Your task to perform on an android device: delete browsing data in the chrome app Image 0: 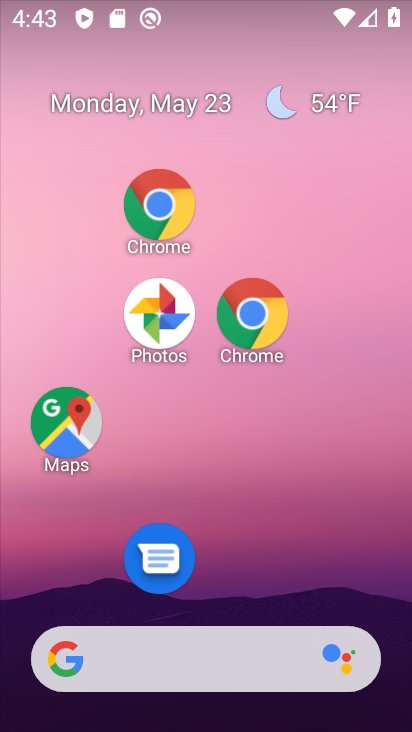
Step 0: drag from (280, 689) to (111, 16)
Your task to perform on an android device: delete browsing data in the chrome app Image 1: 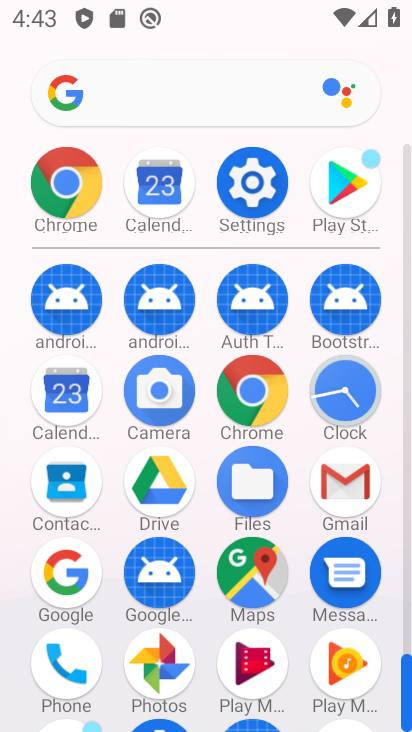
Step 1: click (59, 193)
Your task to perform on an android device: delete browsing data in the chrome app Image 2: 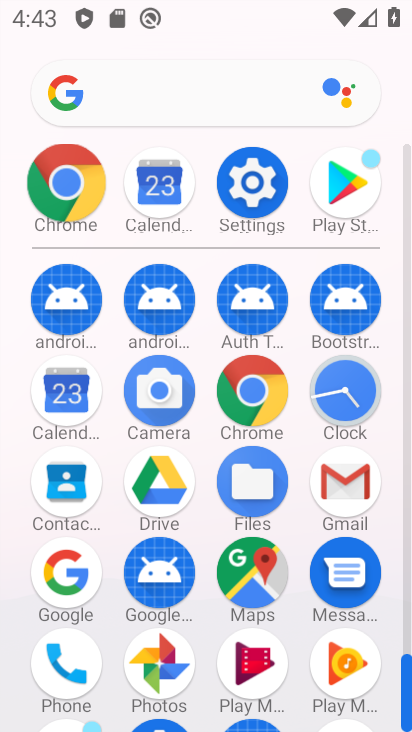
Step 2: click (66, 186)
Your task to perform on an android device: delete browsing data in the chrome app Image 3: 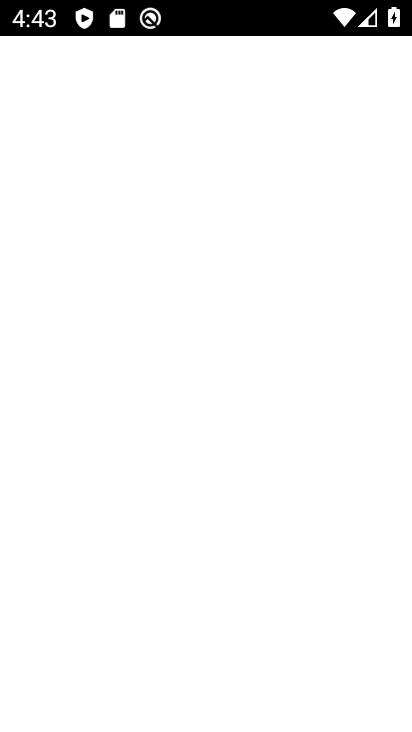
Step 3: click (69, 184)
Your task to perform on an android device: delete browsing data in the chrome app Image 4: 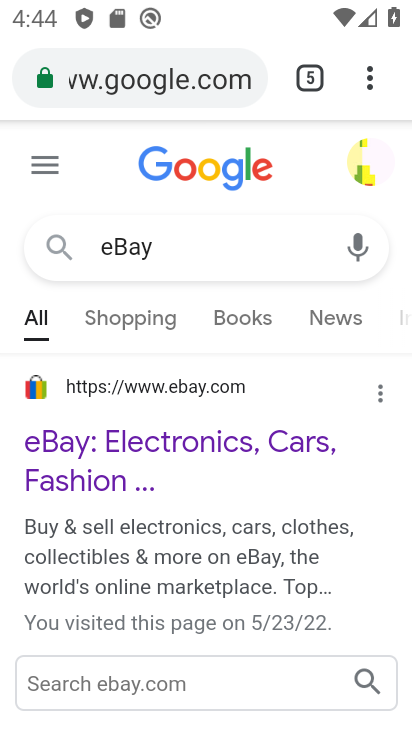
Step 4: drag from (370, 78) to (89, 192)
Your task to perform on an android device: delete browsing data in the chrome app Image 5: 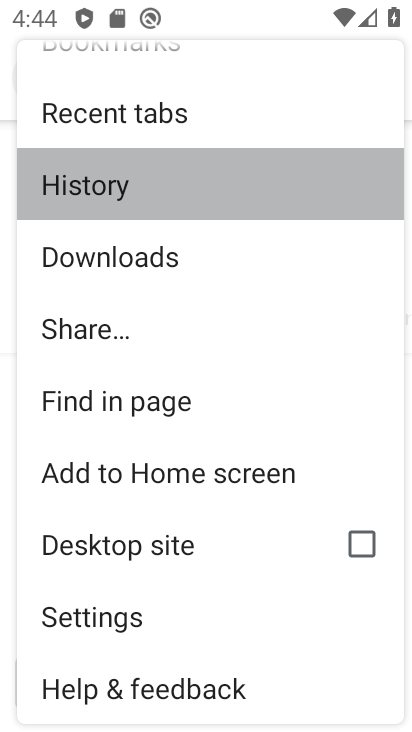
Step 5: click (89, 192)
Your task to perform on an android device: delete browsing data in the chrome app Image 6: 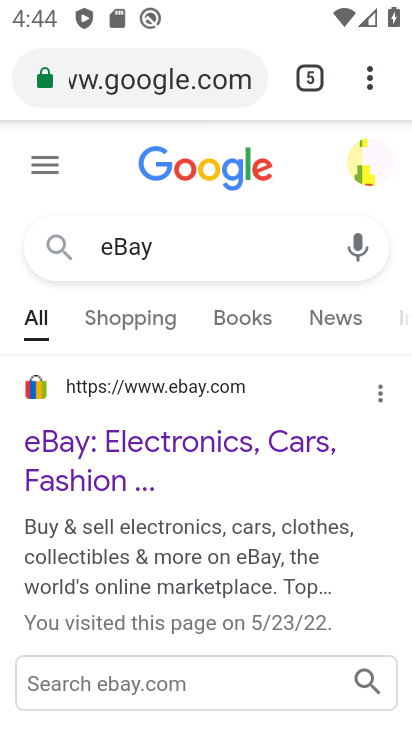
Step 6: click (89, 194)
Your task to perform on an android device: delete browsing data in the chrome app Image 7: 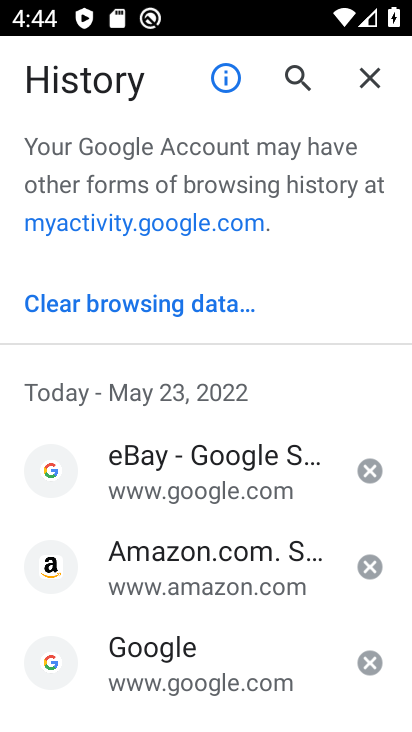
Step 7: click (376, 468)
Your task to perform on an android device: delete browsing data in the chrome app Image 8: 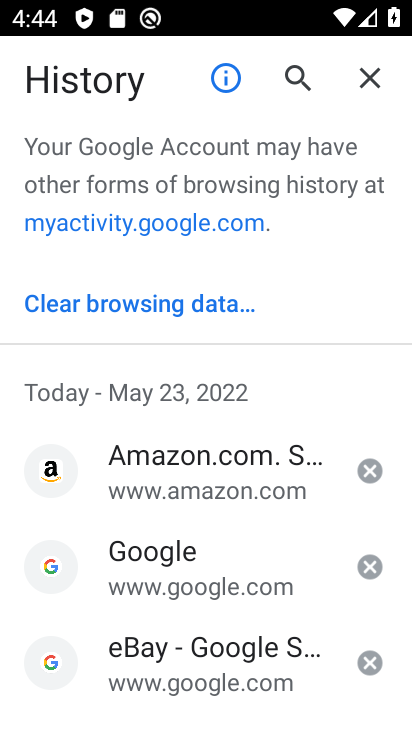
Step 8: task complete